Your task to perform on an android device: allow notifications from all sites in the chrome app Image 0: 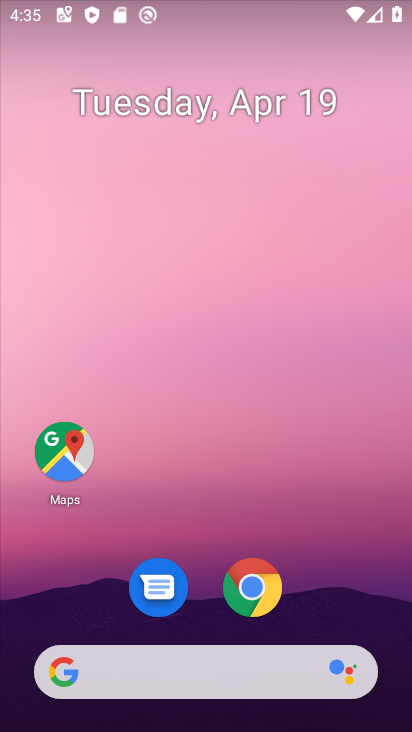
Step 0: drag from (340, 588) to (243, 41)
Your task to perform on an android device: allow notifications from all sites in the chrome app Image 1: 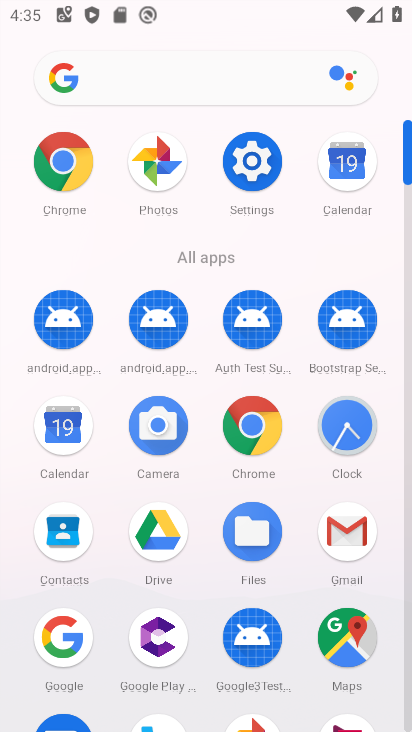
Step 1: drag from (14, 533) to (15, 194)
Your task to perform on an android device: allow notifications from all sites in the chrome app Image 2: 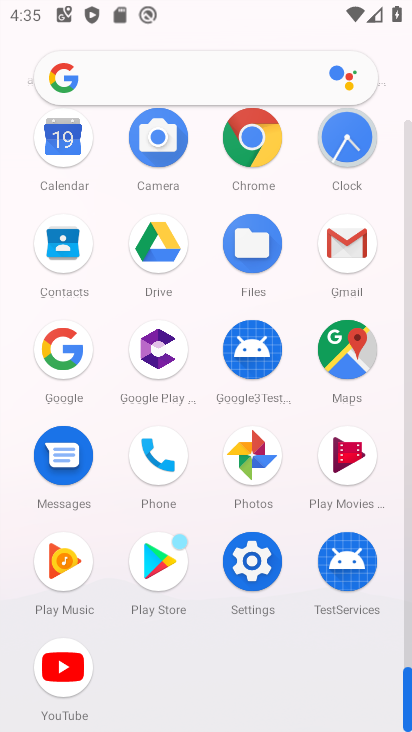
Step 2: click (255, 134)
Your task to perform on an android device: allow notifications from all sites in the chrome app Image 3: 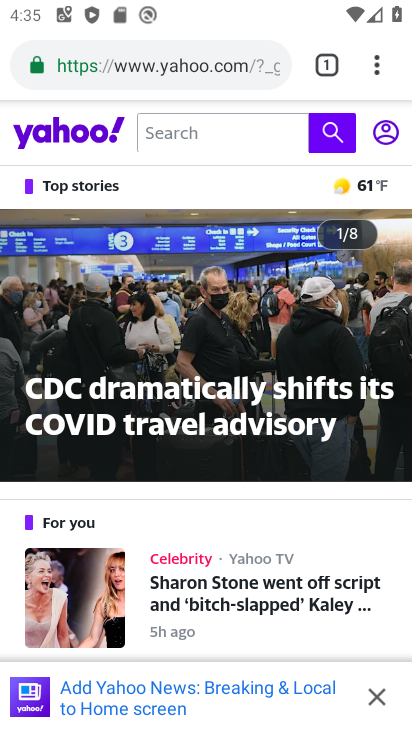
Step 3: drag from (383, 66) to (184, 624)
Your task to perform on an android device: allow notifications from all sites in the chrome app Image 4: 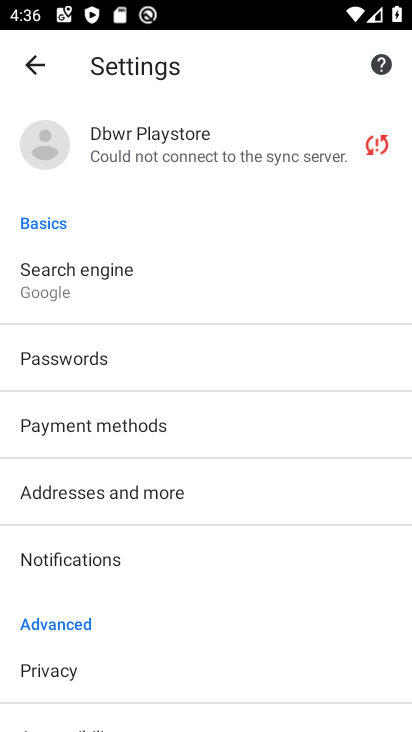
Step 4: drag from (170, 534) to (186, 208)
Your task to perform on an android device: allow notifications from all sites in the chrome app Image 5: 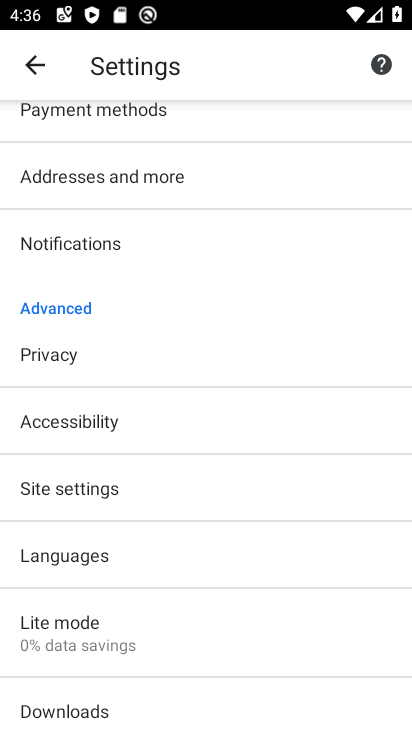
Step 5: drag from (314, 570) to (309, 281)
Your task to perform on an android device: allow notifications from all sites in the chrome app Image 6: 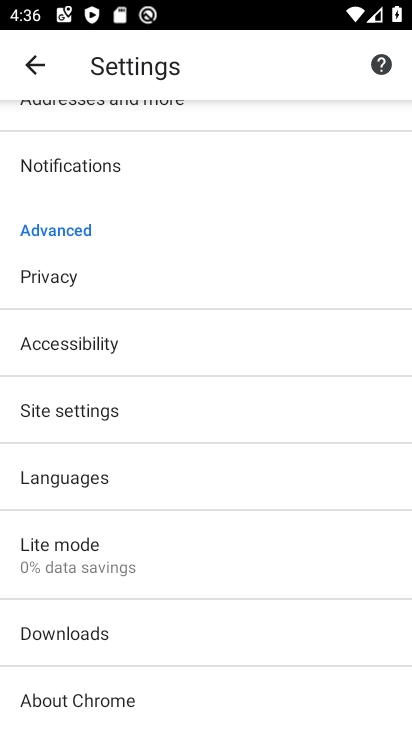
Step 6: click (90, 397)
Your task to perform on an android device: allow notifications from all sites in the chrome app Image 7: 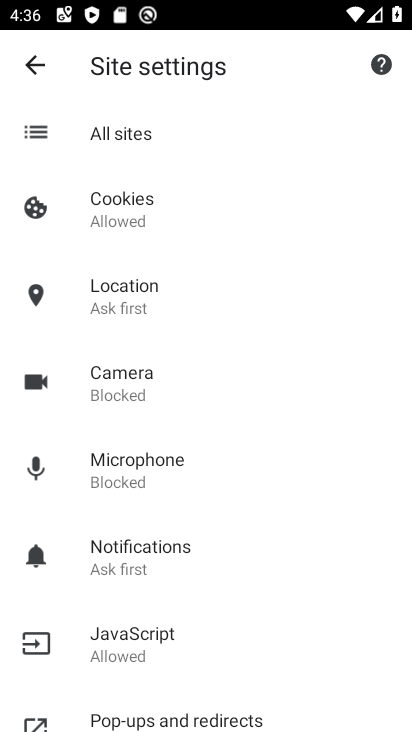
Step 7: click (175, 554)
Your task to perform on an android device: allow notifications from all sites in the chrome app Image 8: 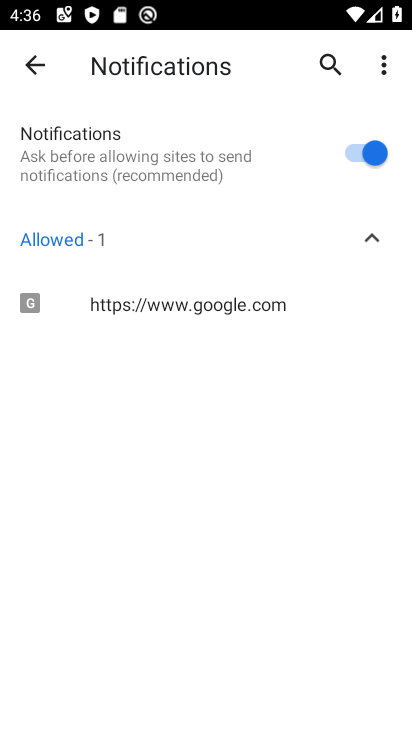
Step 8: task complete